Your task to perform on an android device: turn on the 24-hour format for clock Image 0: 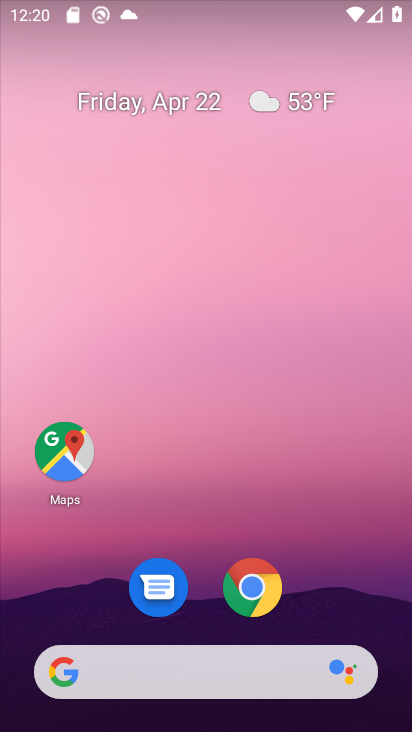
Step 0: drag from (369, 587) to (334, 210)
Your task to perform on an android device: turn on the 24-hour format for clock Image 1: 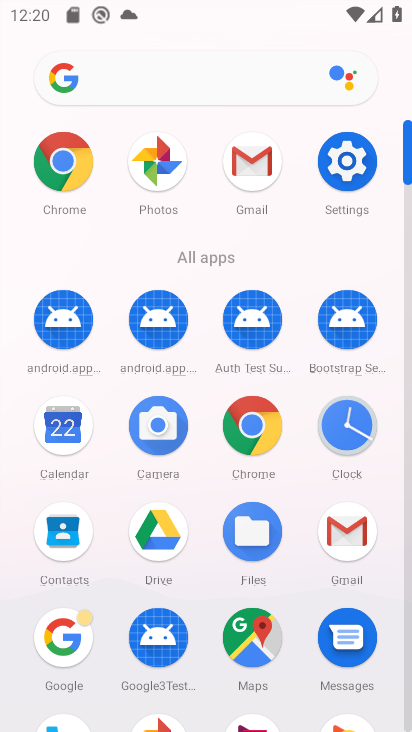
Step 1: drag from (198, 637) to (187, 477)
Your task to perform on an android device: turn on the 24-hour format for clock Image 2: 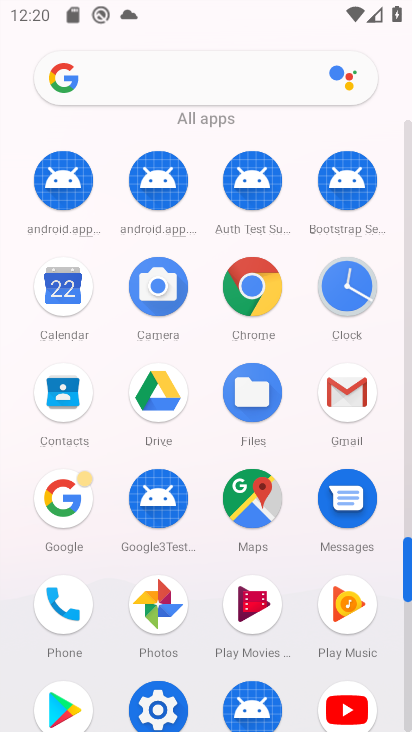
Step 2: click (358, 298)
Your task to perform on an android device: turn on the 24-hour format for clock Image 3: 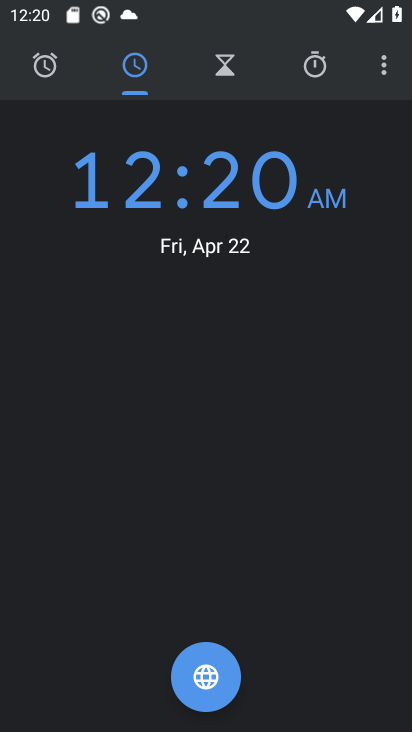
Step 3: click (381, 65)
Your task to perform on an android device: turn on the 24-hour format for clock Image 4: 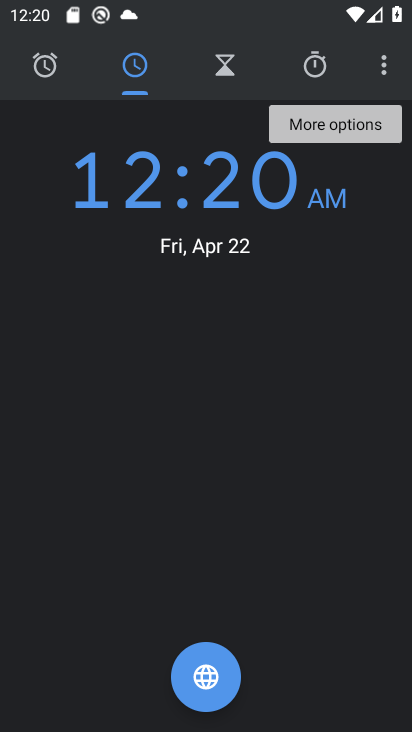
Step 4: click (386, 75)
Your task to perform on an android device: turn on the 24-hour format for clock Image 5: 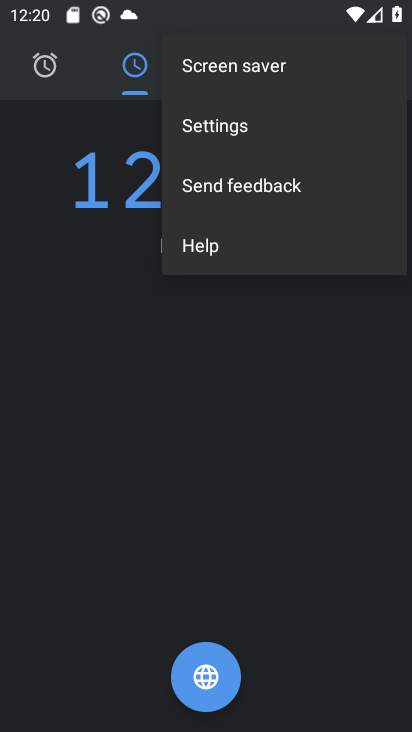
Step 5: click (268, 120)
Your task to perform on an android device: turn on the 24-hour format for clock Image 6: 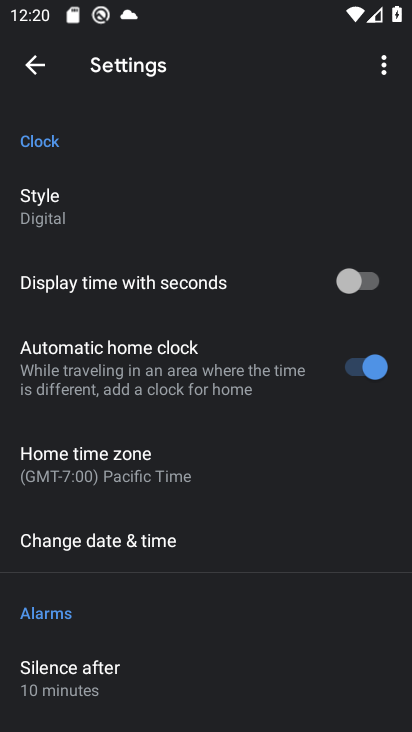
Step 6: click (142, 546)
Your task to perform on an android device: turn on the 24-hour format for clock Image 7: 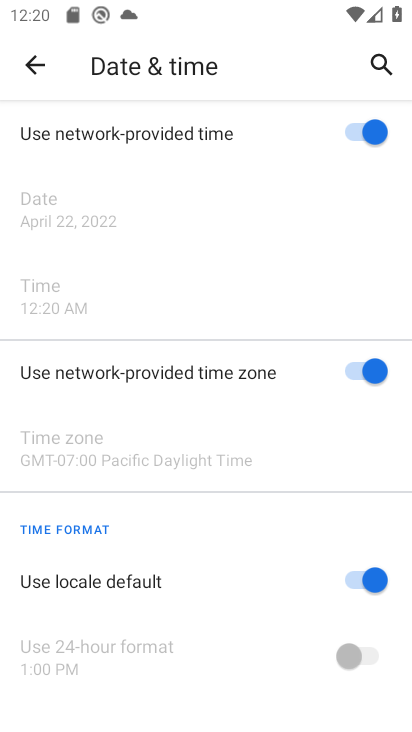
Step 7: click (359, 581)
Your task to perform on an android device: turn on the 24-hour format for clock Image 8: 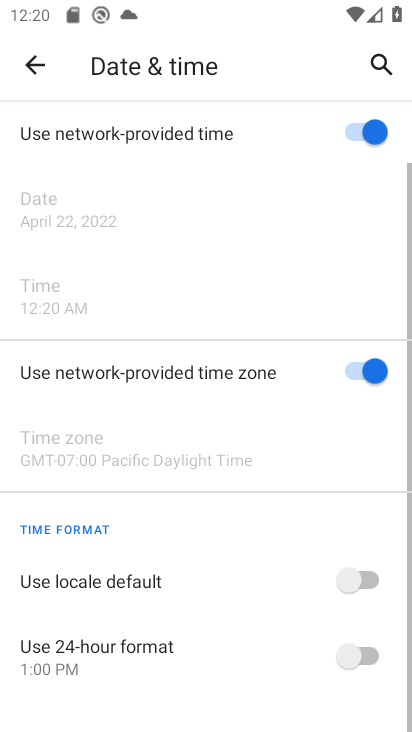
Step 8: click (356, 662)
Your task to perform on an android device: turn on the 24-hour format for clock Image 9: 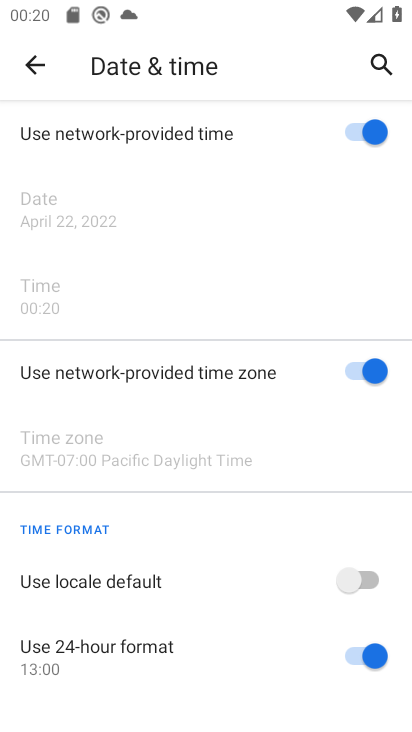
Step 9: task complete